Your task to perform on an android device: Open Maps and search for coffee Image 0: 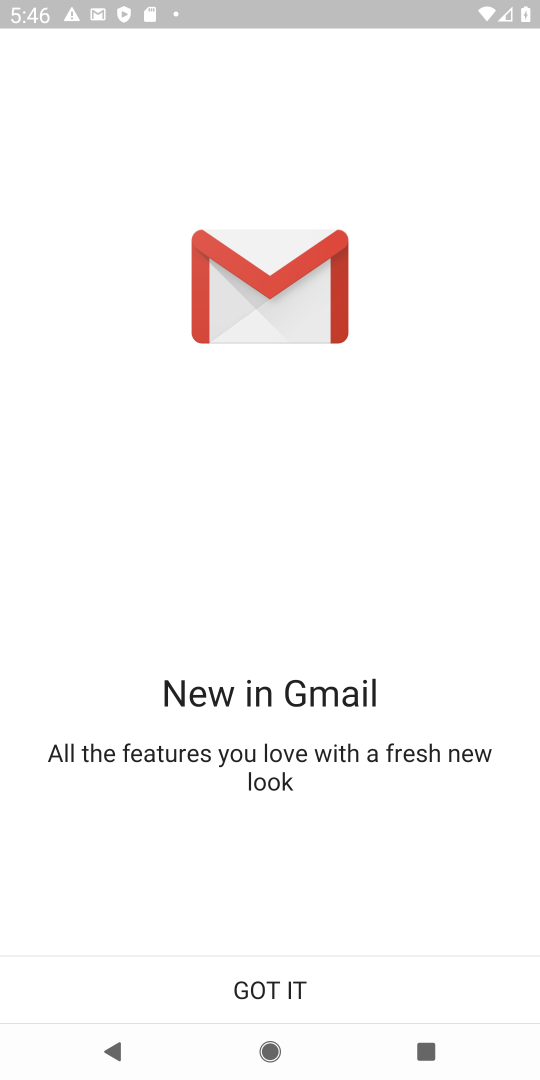
Step 0: click (243, 992)
Your task to perform on an android device: Open Maps and search for coffee Image 1: 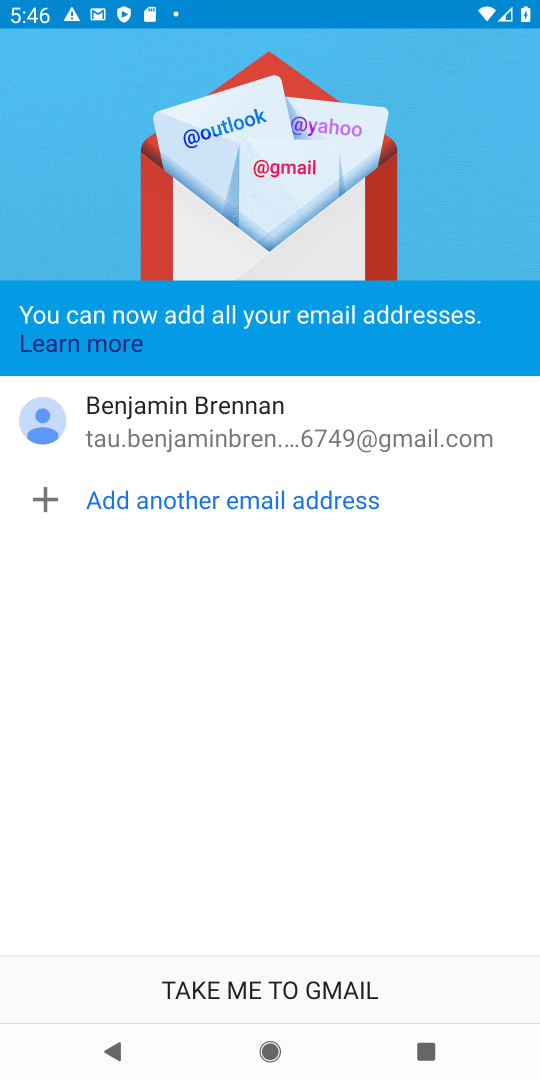
Step 1: click (243, 992)
Your task to perform on an android device: Open Maps and search for coffee Image 2: 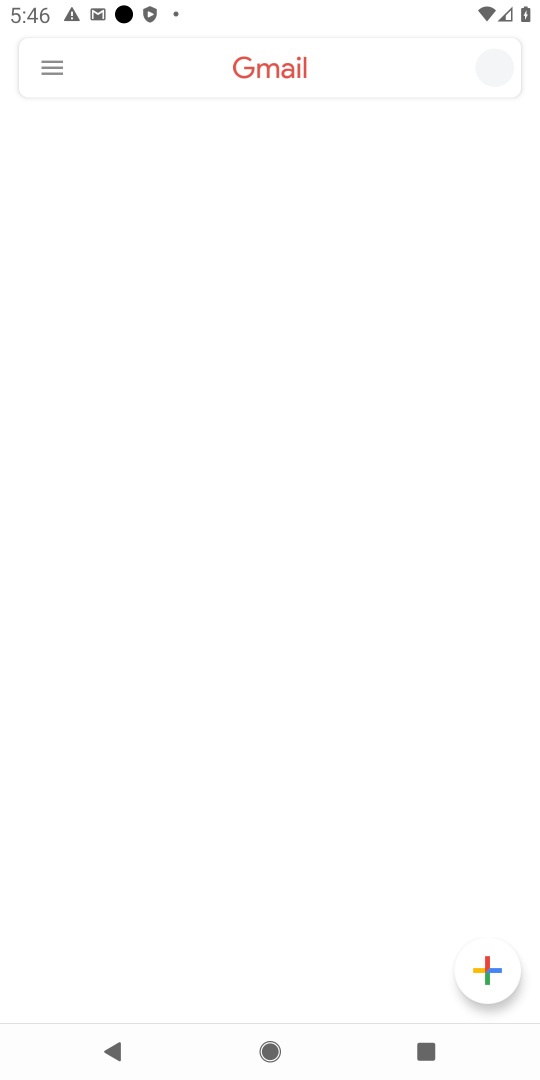
Step 2: press home button
Your task to perform on an android device: Open Maps and search for coffee Image 3: 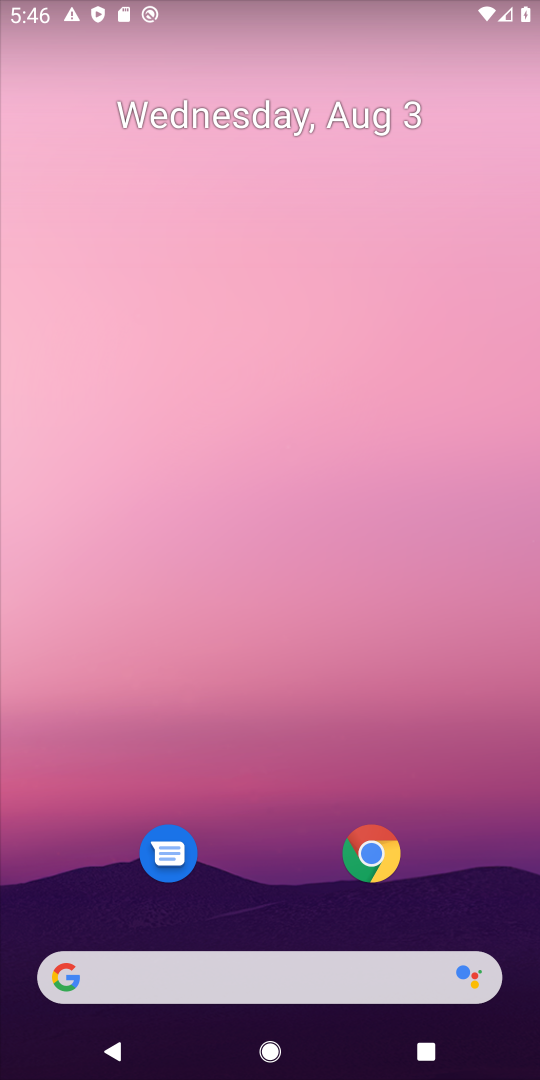
Step 3: drag from (473, 861) to (441, 192)
Your task to perform on an android device: Open Maps and search for coffee Image 4: 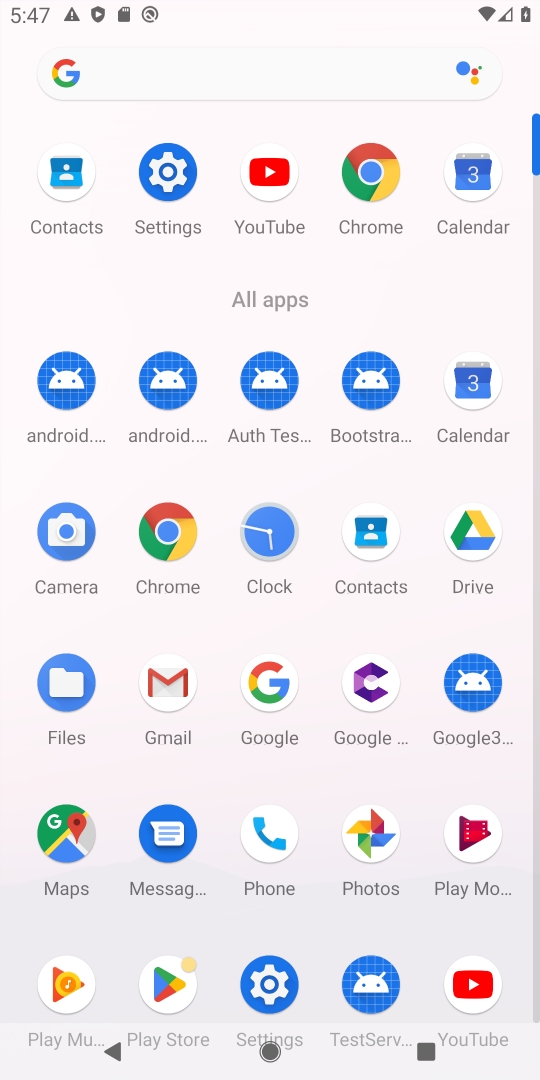
Step 4: click (72, 831)
Your task to perform on an android device: Open Maps and search for coffee Image 5: 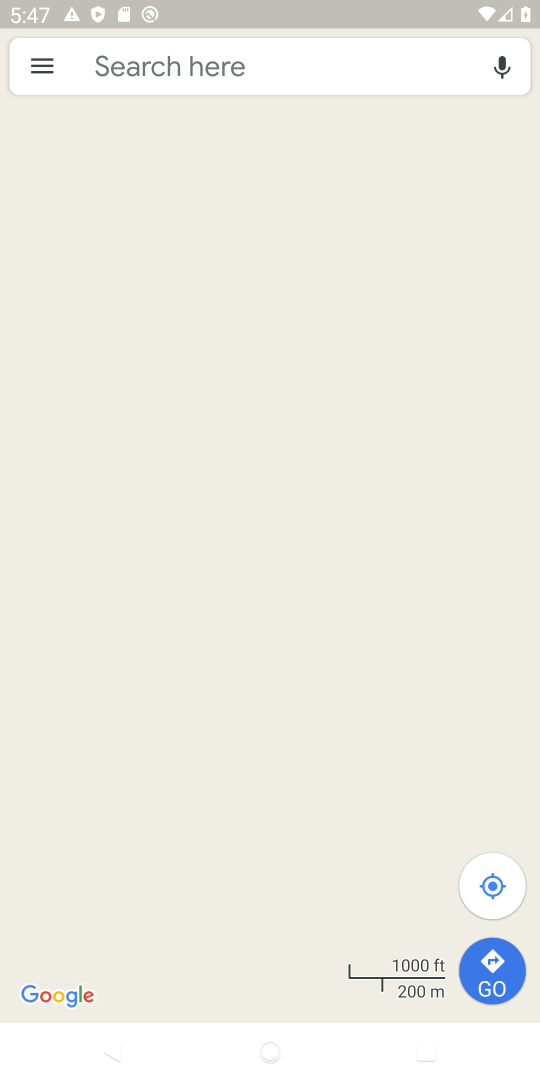
Step 5: click (238, 75)
Your task to perform on an android device: Open Maps and search for coffee Image 6: 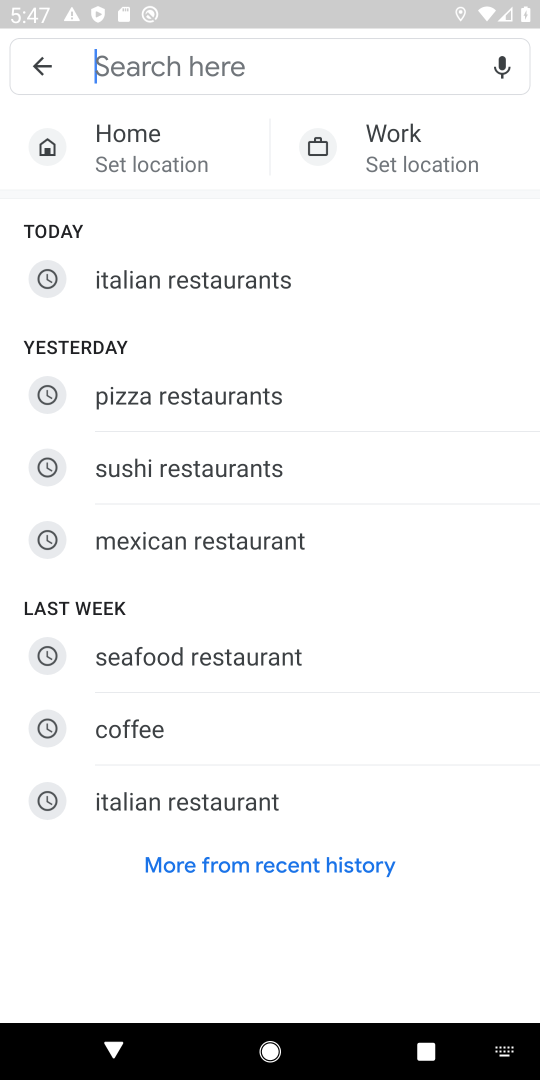
Step 6: type "coffee"
Your task to perform on an android device: Open Maps and search for coffee Image 7: 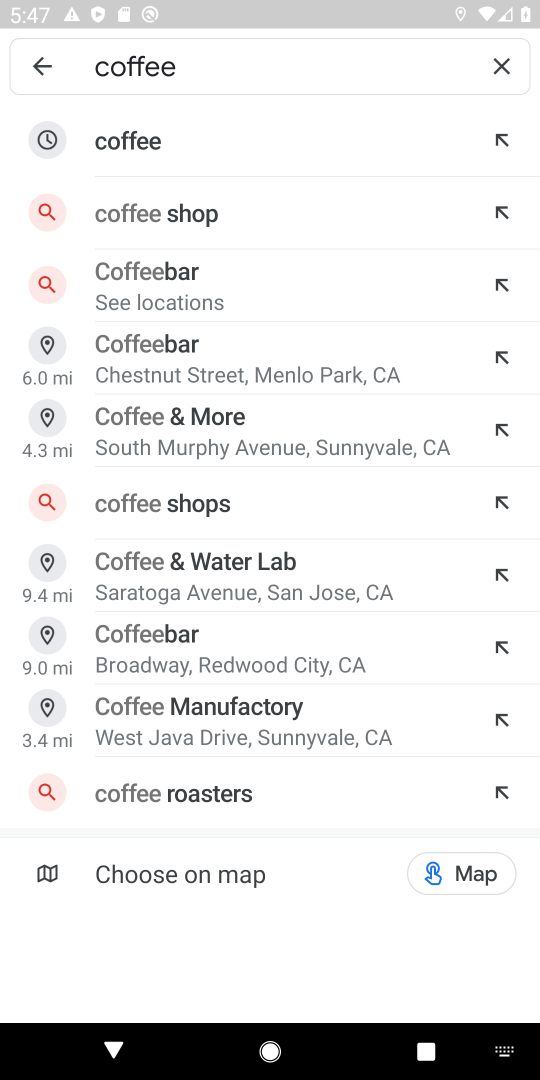
Step 7: click (210, 134)
Your task to perform on an android device: Open Maps and search for coffee Image 8: 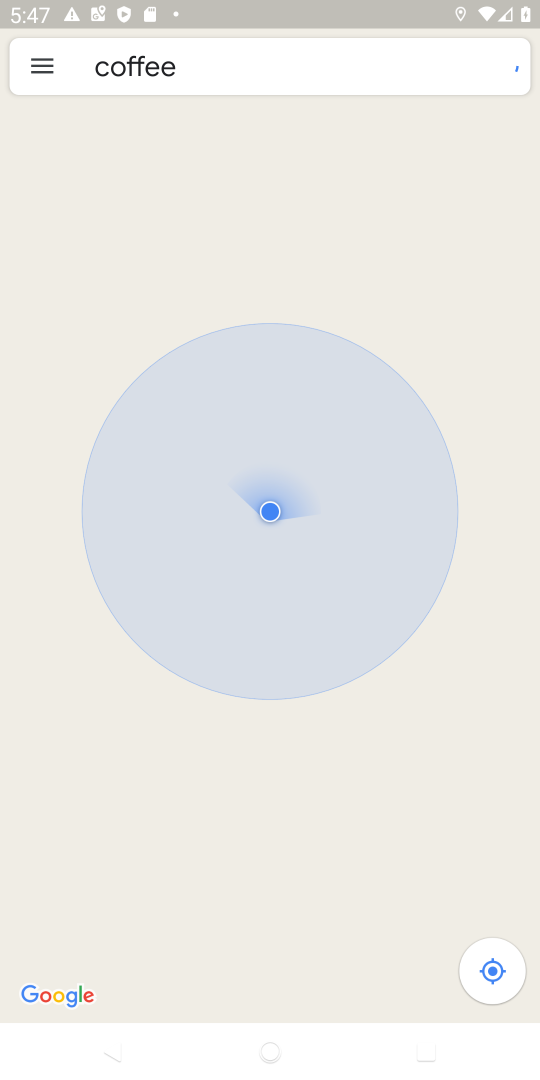
Step 8: task complete